Your task to perform on an android device: Open calendar and show me the second week of next month Image 0: 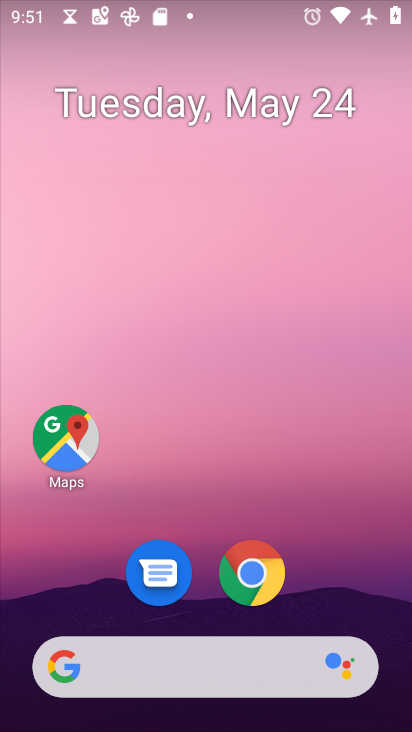
Step 0: drag from (376, 591) to (410, 228)
Your task to perform on an android device: Open calendar and show me the second week of next month Image 1: 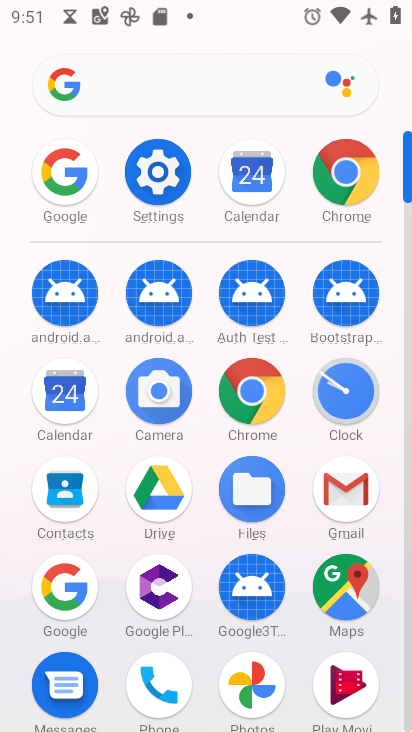
Step 1: click (33, 401)
Your task to perform on an android device: Open calendar and show me the second week of next month Image 2: 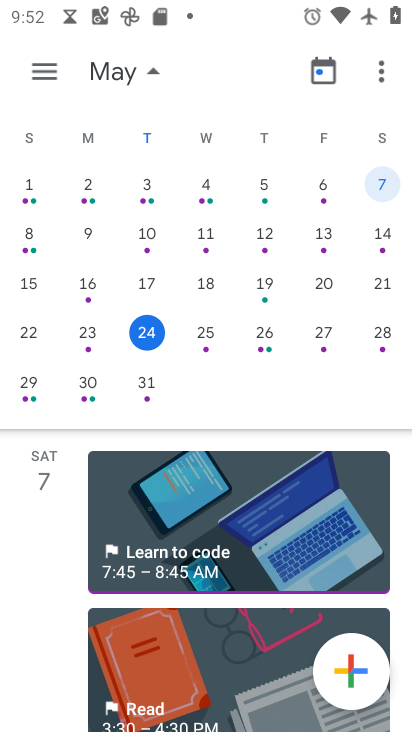
Step 2: drag from (368, 357) to (378, 656)
Your task to perform on an android device: Open calendar and show me the second week of next month Image 3: 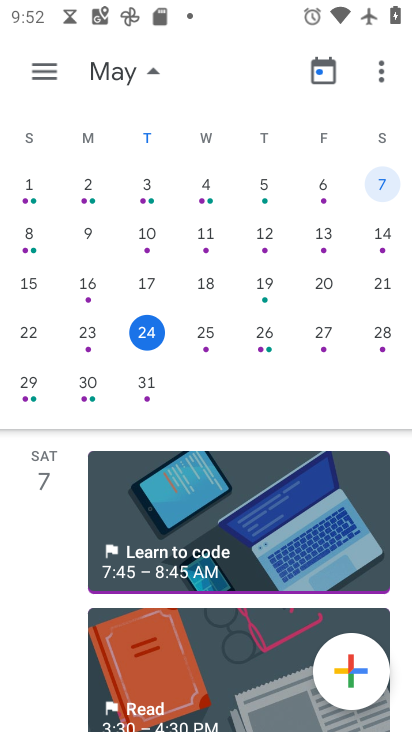
Step 3: click (383, 238)
Your task to perform on an android device: Open calendar and show me the second week of next month Image 4: 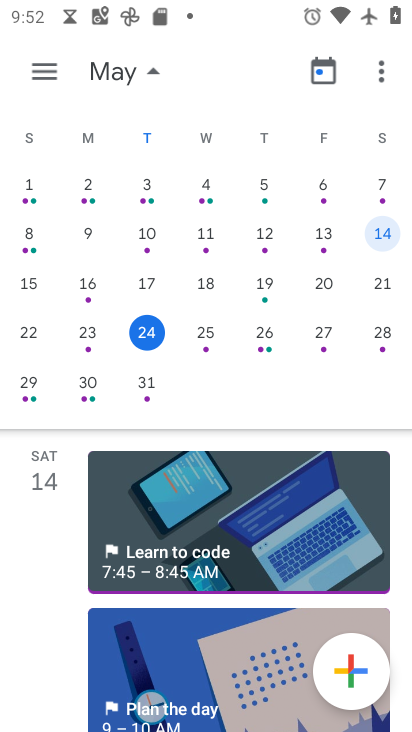
Step 4: task complete